Your task to perform on an android device: Show me the alarms in the clock app Image 0: 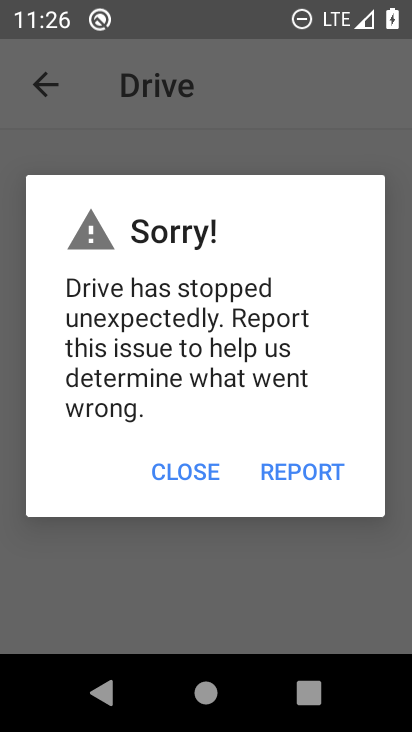
Step 0: press home button
Your task to perform on an android device: Show me the alarms in the clock app Image 1: 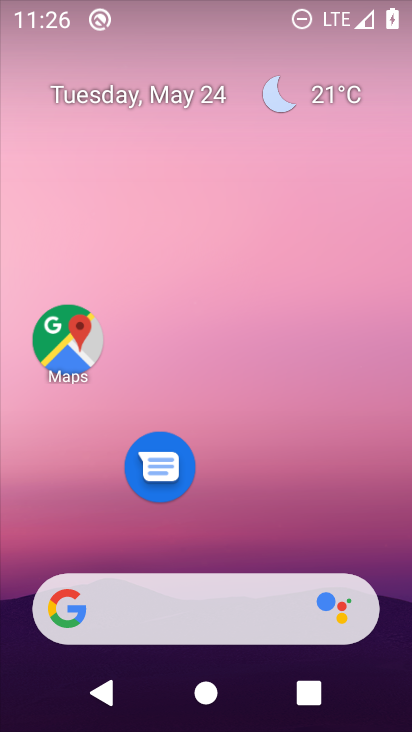
Step 1: drag from (229, 543) to (290, 176)
Your task to perform on an android device: Show me the alarms in the clock app Image 2: 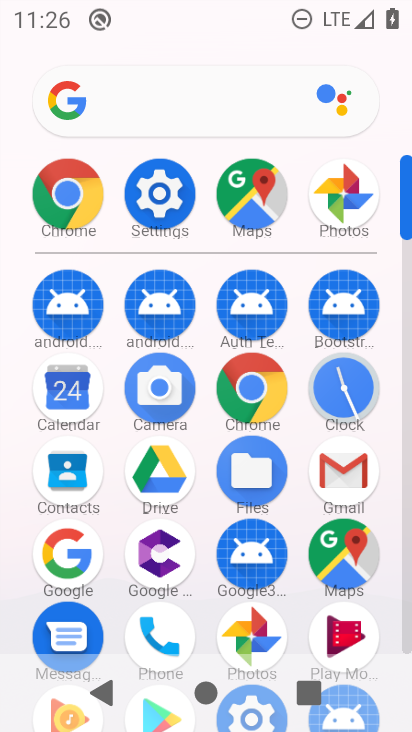
Step 2: click (361, 379)
Your task to perform on an android device: Show me the alarms in the clock app Image 3: 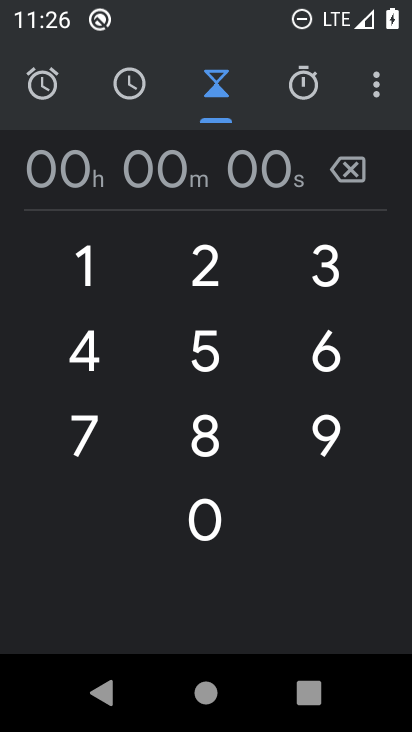
Step 3: click (56, 74)
Your task to perform on an android device: Show me the alarms in the clock app Image 4: 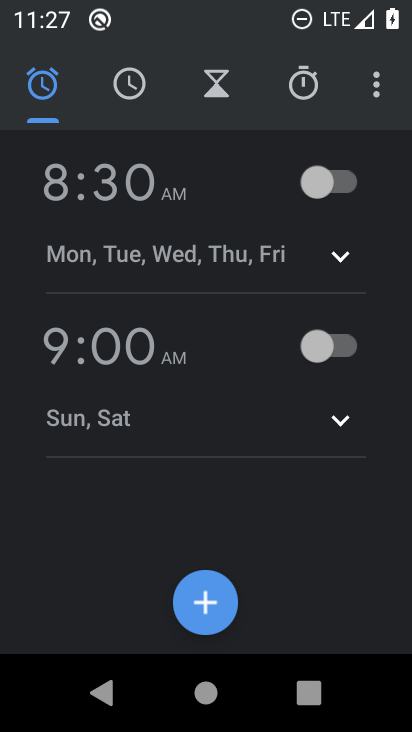
Step 4: task complete